Your task to perform on an android device: toggle pop-ups in chrome Image 0: 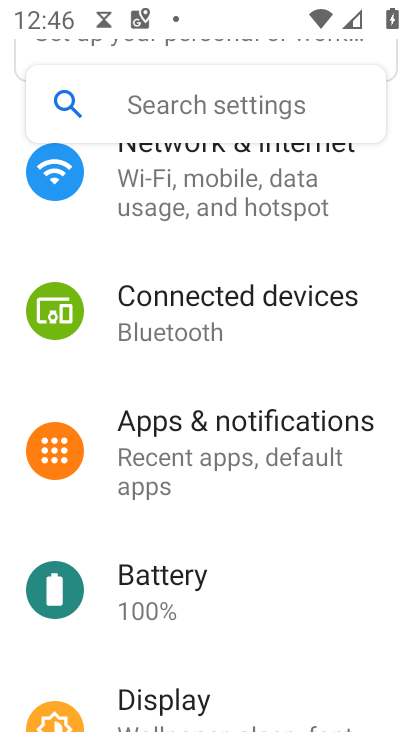
Step 0: press home button
Your task to perform on an android device: toggle pop-ups in chrome Image 1: 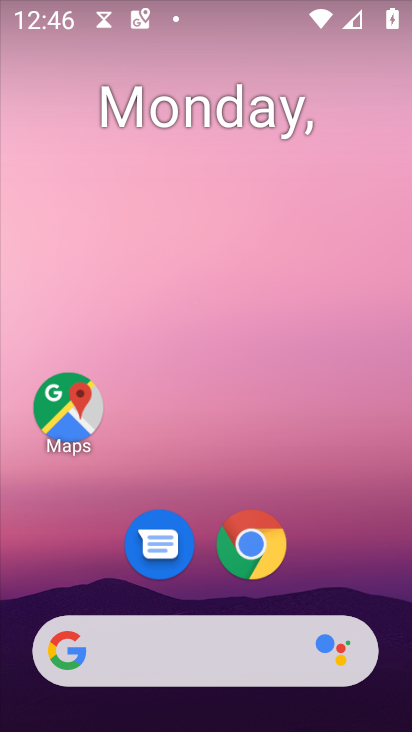
Step 1: drag from (341, 576) to (329, 159)
Your task to perform on an android device: toggle pop-ups in chrome Image 2: 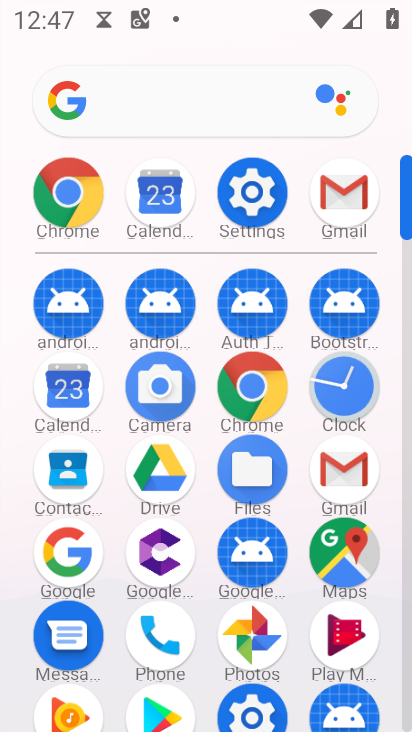
Step 2: click (66, 184)
Your task to perform on an android device: toggle pop-ups in chrome Image 3: 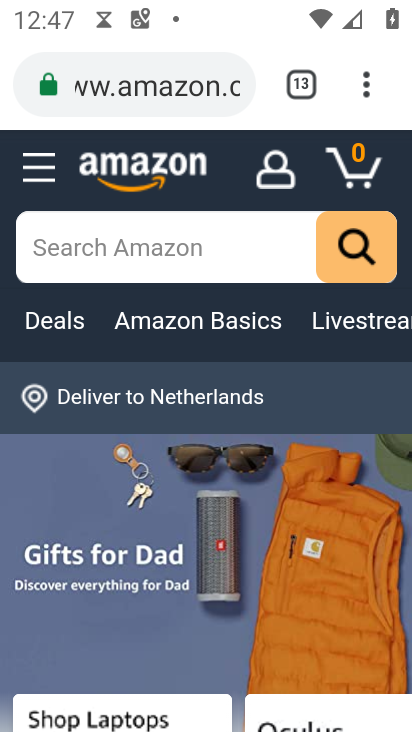
Step 3: click (367, 78)
Your task to perform on an android device: toggle pop-ups in chrome Image 4: 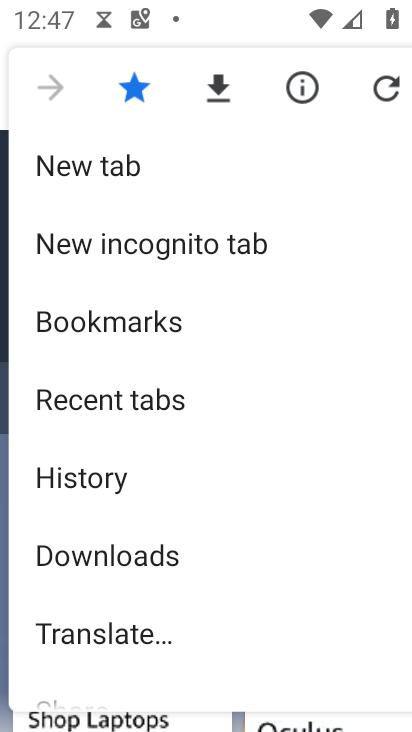
Step 4: drag from (287, 568) to (330, 213)
Your task to perform on an android device: toggle pop-ups in chrome Image 5: 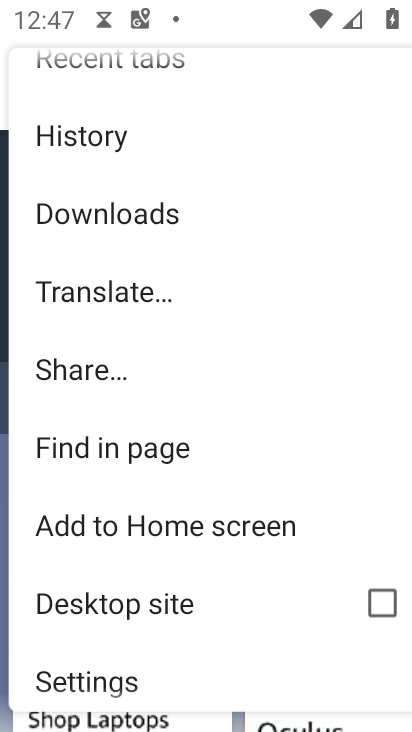
Step 5: drag from (130, 628) to (190, 396)
Your task to perform on an android device: toggle pop-ups in chrome Image 6: 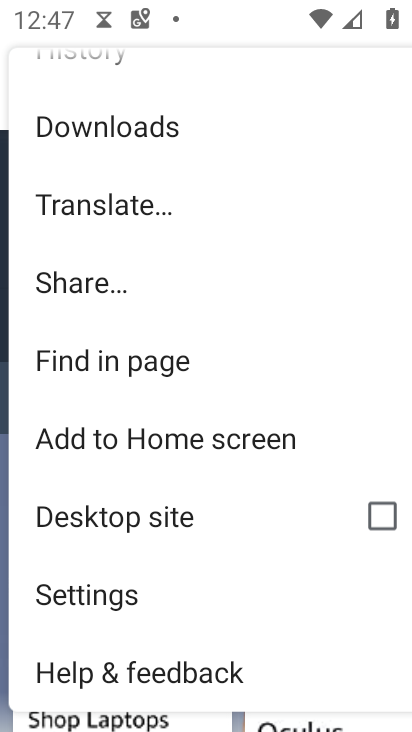
Step 6: click (110, 586)
Your task to perform on an android device: toggle pop-ups in chrome Image 7: 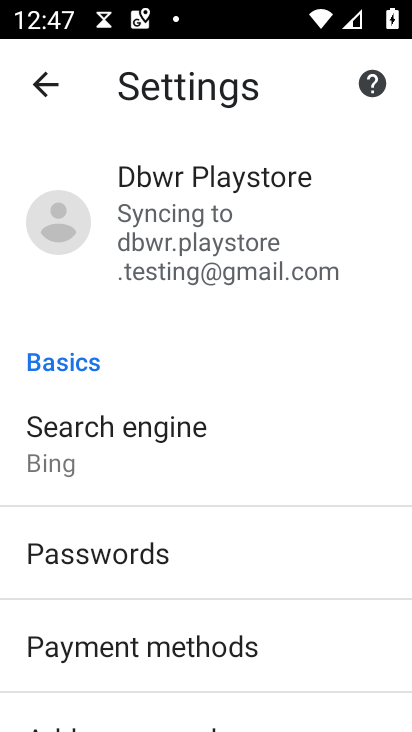
Step 7: drag from (215, 571) to (314, 123)
Your task to perform on an android device: toggle pop-ups in chrome Image 8: 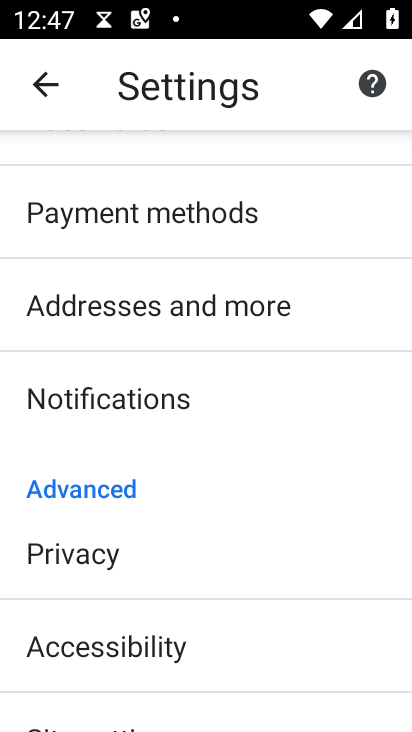
Step 8: drag from (244, 633) to (271, 285)
Your task to perform on an android device: toggle pop-ups in chrome Image 9: 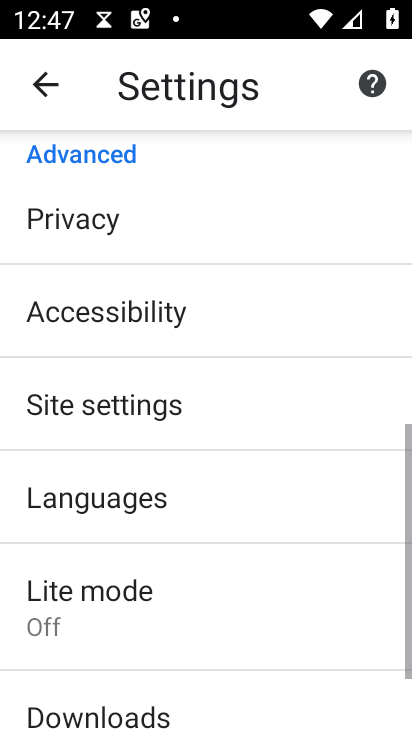
Step 9: click (203, 619)
Your task to perform on an android device: toggle pop-ups in chrome Image 10: 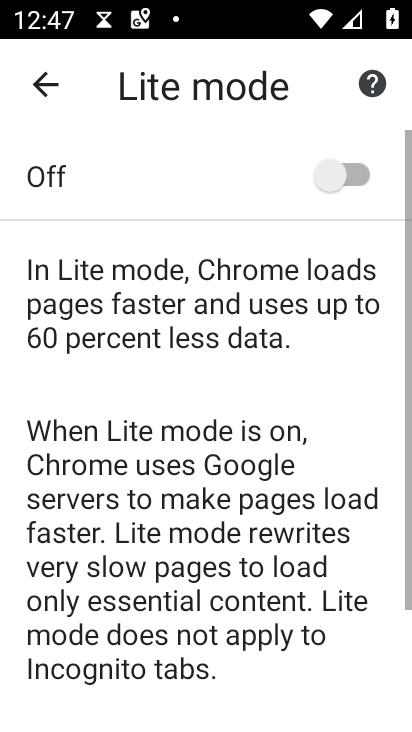
Step 10: click (59, 67)
Your task to perform on an android device: toggle pop-ups in chrome Image 11: 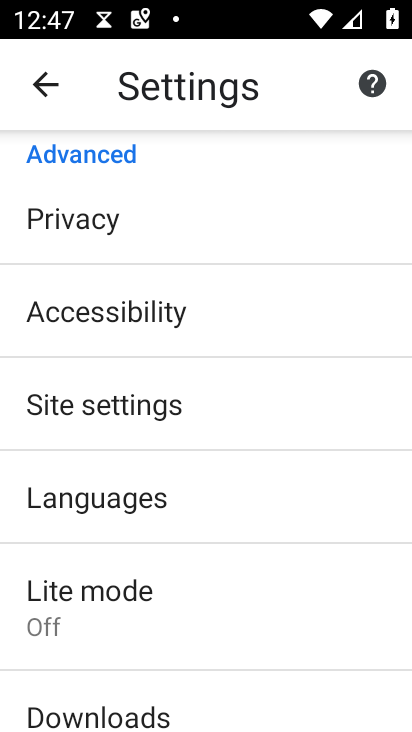
Step 11: click (210, 410)
Your task to perform on an android device: toggle pop-ups in chrome Image 12: 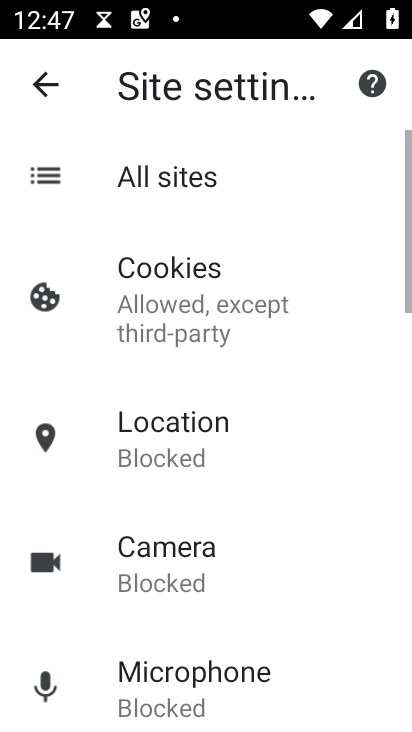
Step 12: drag from (217, 627) to (305, 118)
Your task to perform on an android device: toggle pop-ups in chrome Image 13: 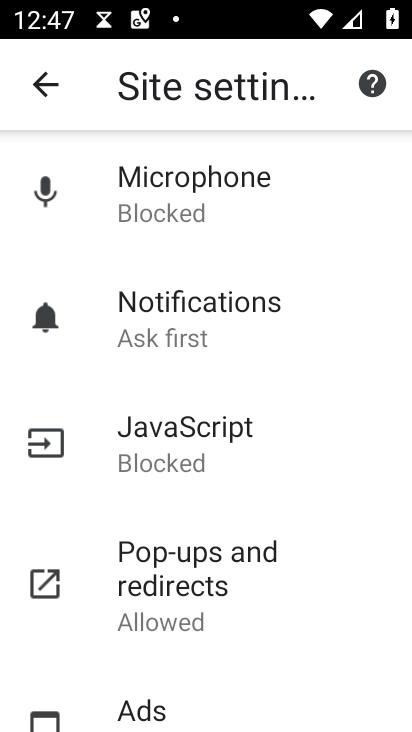
Step 13: click (235, 572)
Your task to perform on an android device: toggle pop-ups in chrome Image 14: 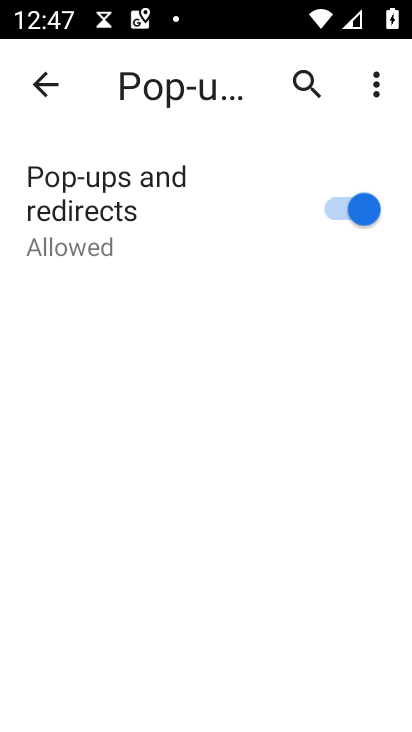
Step 14: click (338, 193)
Your task to perform on an android device: toggle pop-ups in chrome Image 15: 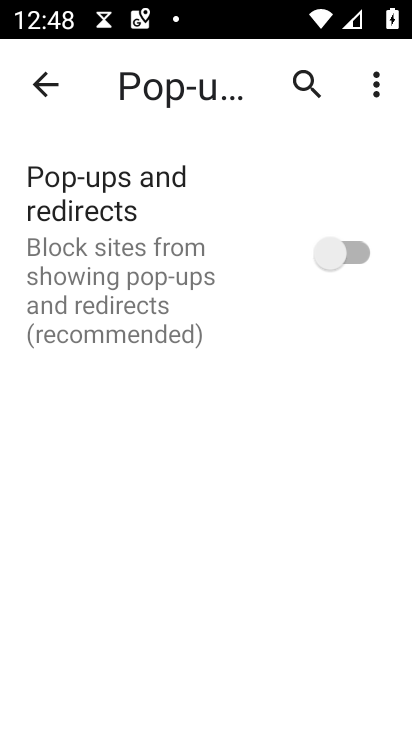
Step 15: task complete